Your task to perform on an android device: Open wifi settings Image 0: 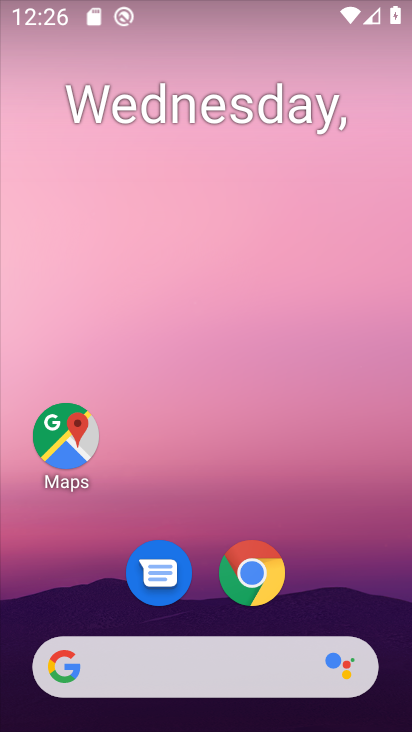
Step 0: drag from (322, 565) to (266, 146)
Your task to perform on an android device: Open wifi settings Image 1: 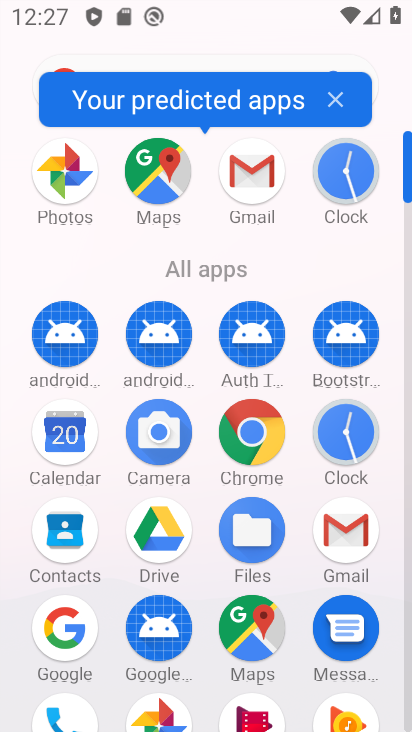
Step 1: drag from (302, 577) to (305, 170)
Your task to perform on an android device: Open wifi settings Image 2: 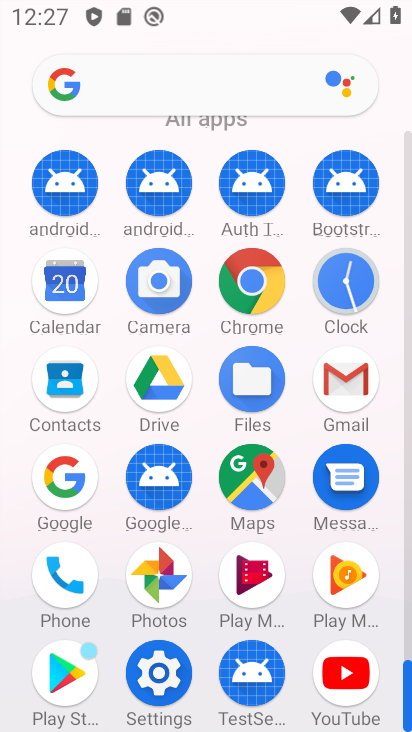
Step 2: click (157, 657)
Your task to perform on an android device: Open wifi settings Image 3: 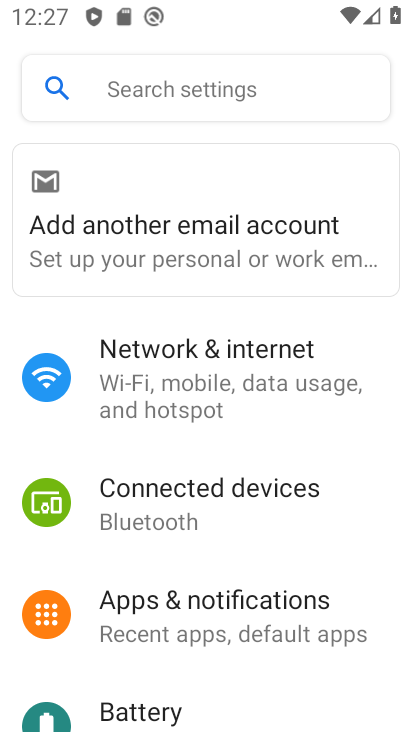
Step 3: click (201, 366)
Your task to perform on an android device: Open wifi settings Image 4: 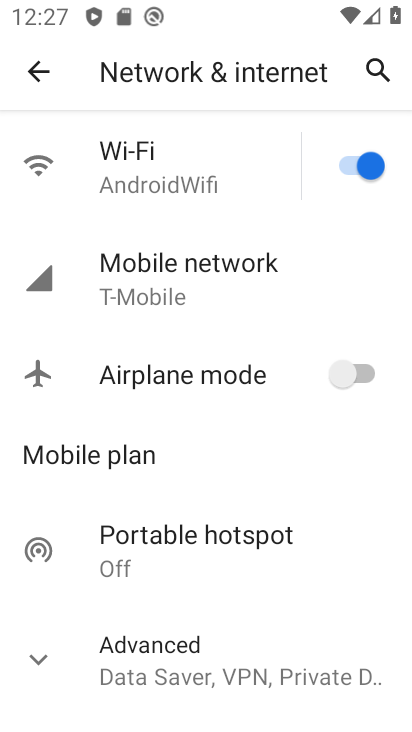
Step 4: click (113, 167)
Your task to perform on an android device: Open wifi settings Image 5: 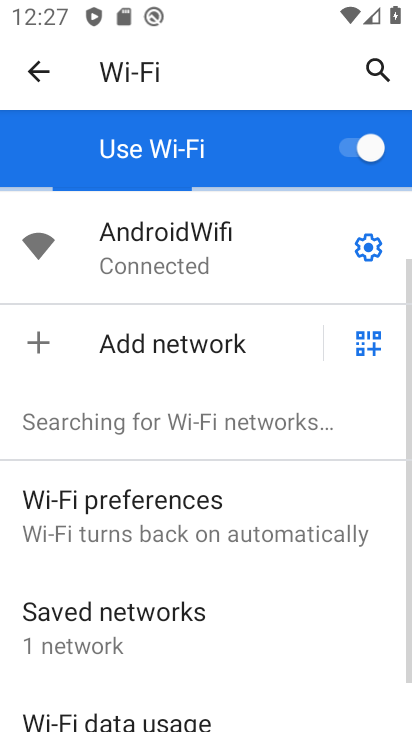
Step 5: click (376, 235)
Your task to perform on an android device: Open wifi settings Image 6: 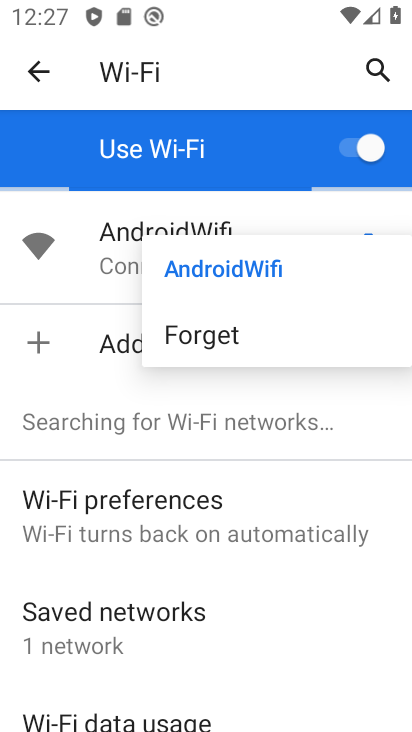
Step 6: click (112, 223)
Your task to perform on an android device: Open wifi settings Image 7: 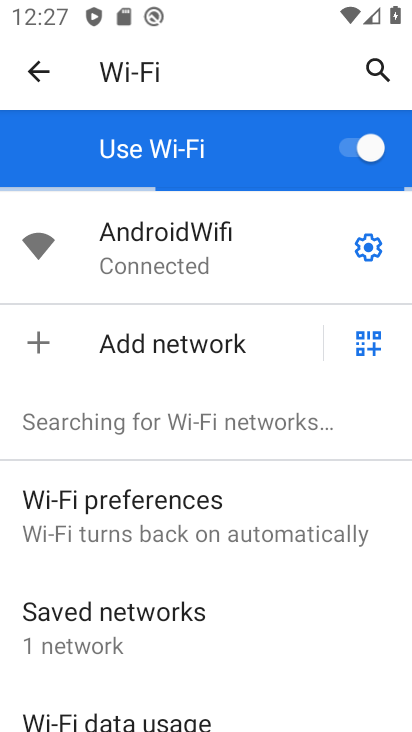
Step 7: click (366, 239)
Your task to perform on an android device: Open wifi settings Image 8: 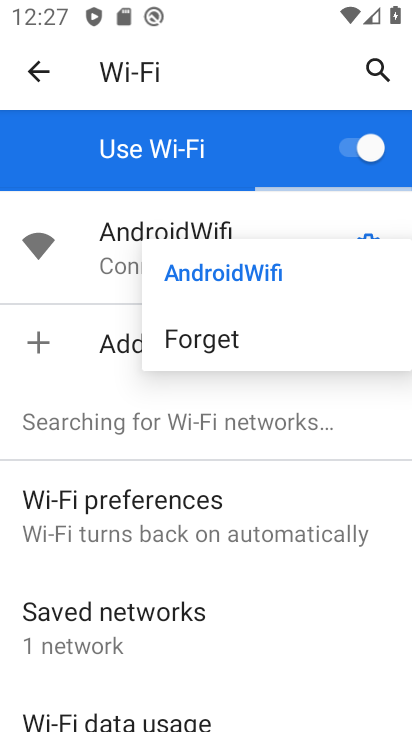
Step 8: click (367, 229)
Your task to perform on an android device: Open wifi settings Image 9: 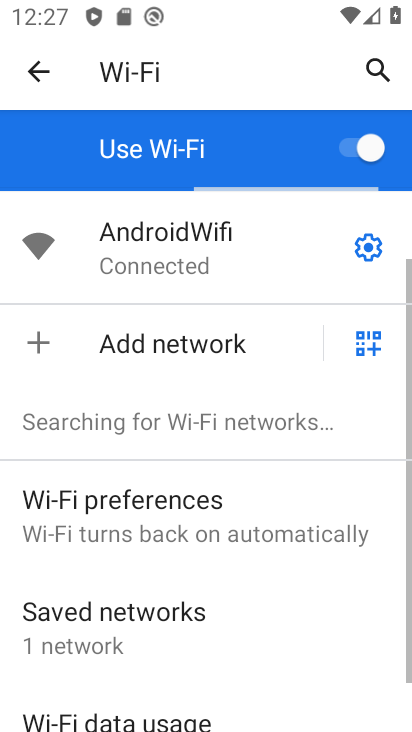
Step 9: click (367, 247)
Your task to perform on an android device: Open wifi settings Image 10: 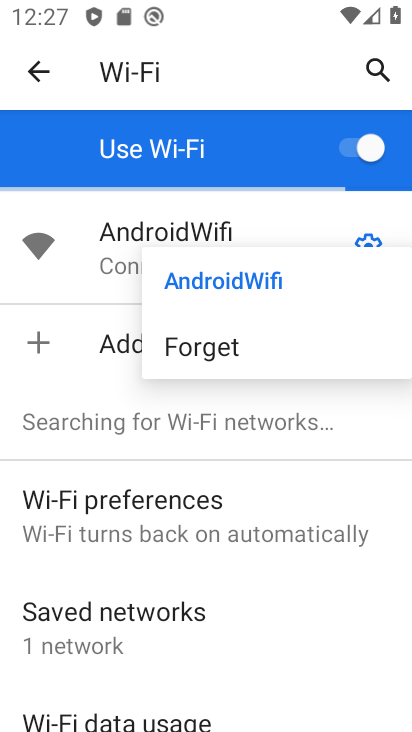
Step 10: click (378, 230)
Your task to perform on an android device: Open wifi settings Image 11: 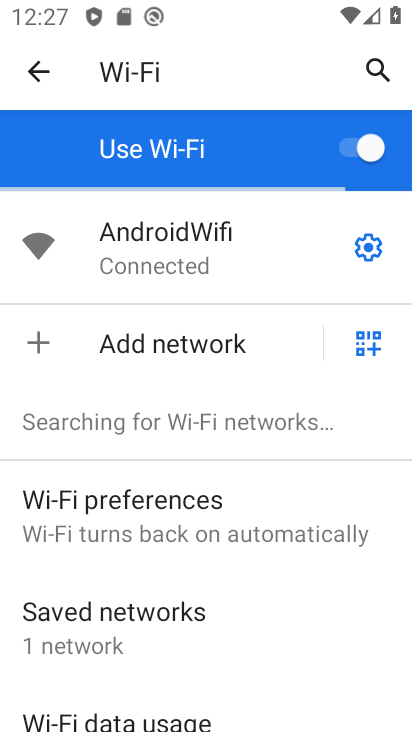
Step 11: click (367, 255)
Your task to perform on an android device: Open wifi settings Image 12: 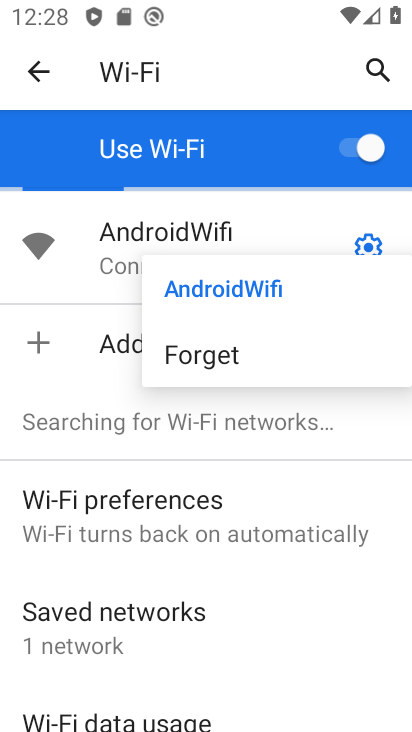
Step 12: click (363, 243)
Your task to perform on an android device: Open wifi settings Image 13: 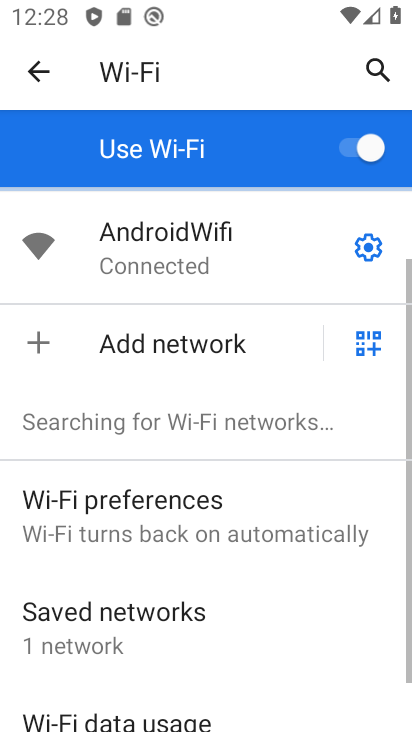
Step 13: click (363, 243)
Your task to perform on an android device: Open wifi settings Image 14: 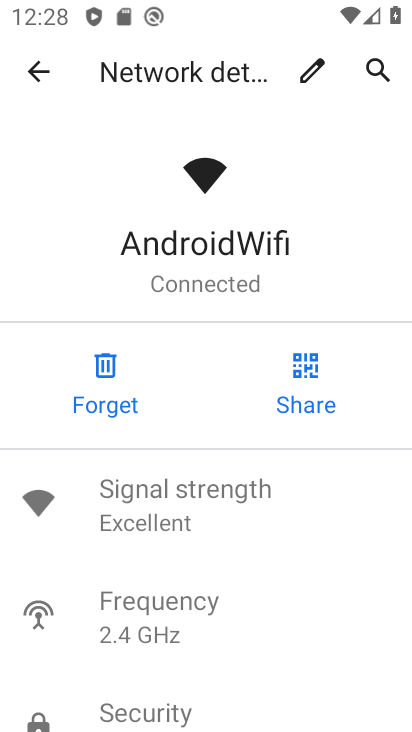
Step 14: task complete